Your task to perform on an android device: turn off data saver in the chrome app Image 0: 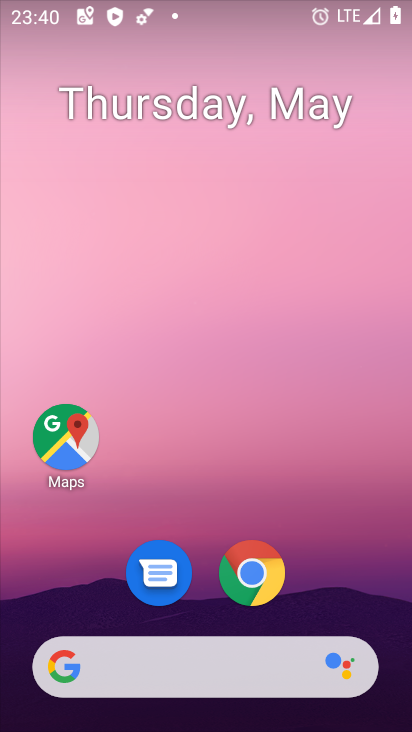
Step 0: click (245, 597)
Your task to perform on an android device: turn off data saver in the chrome app Image 1: 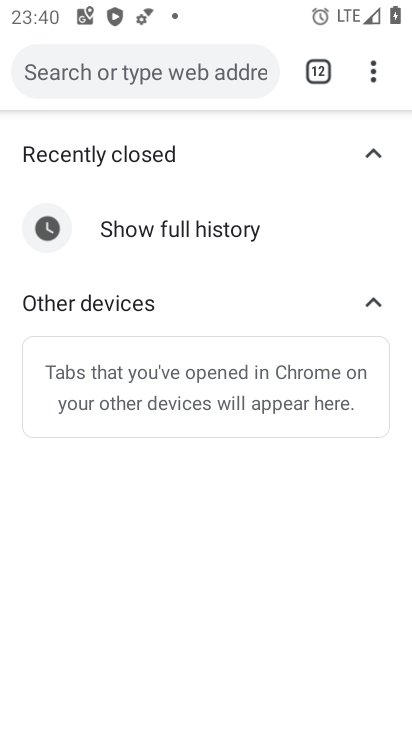
Step 1: click (363, 71)
Your task to perform on an android device: turn off data saver in the chrome app Image 2: 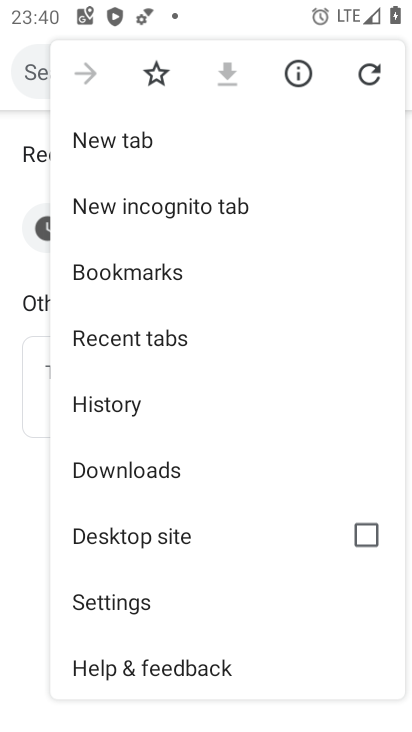
Step 2: drag from (207, 529) to (190, 335)
Your task to perform on an android device: turn off data saver in the chrome app Image 3: 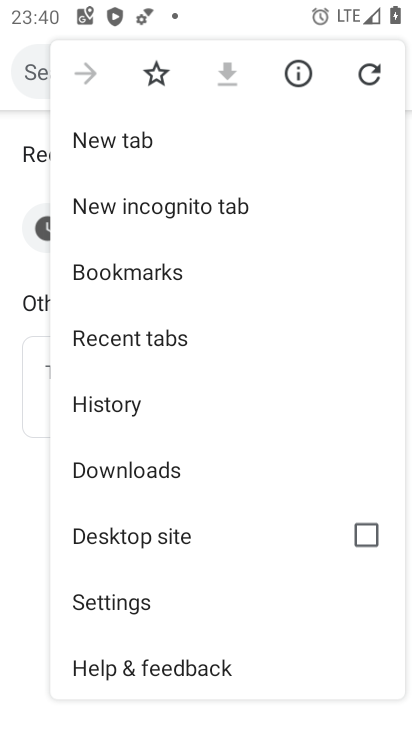
Step 3: click (160, 599)
Your task to perform on an android device: turn off data saver in the chrome app Image 4: 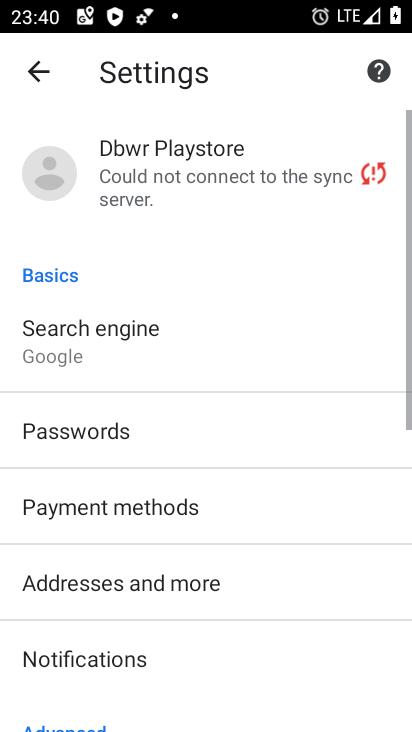
Step 4: drag from (164, 598) to (187, 253)
Your task to perform on an android device: turn off data saver in the chrome app Image 5: 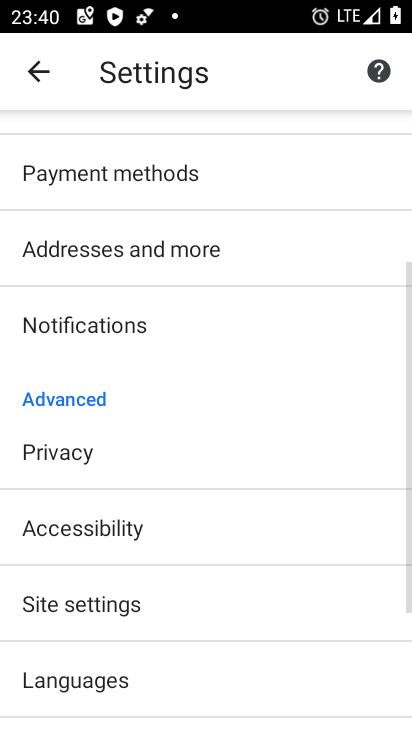
Step 5: drag from (147, 626) to (156, 383)
Your task to perform on an android device: turn off data saver in the chrome app Image 6: 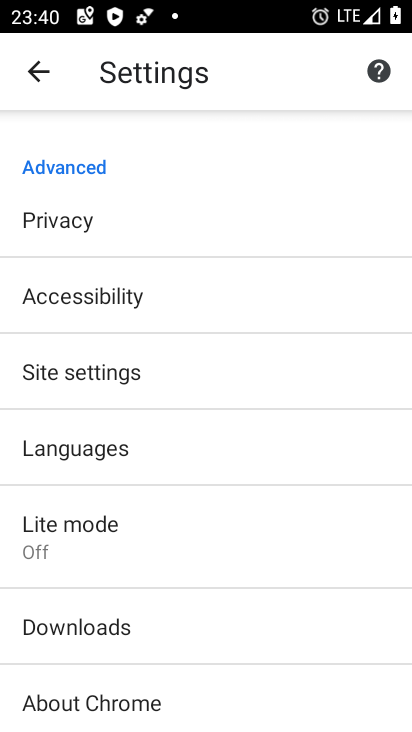
Step 6: click (134, 510)
Your task to perform on an android device: turn off data saver in the chrome app Image 7: 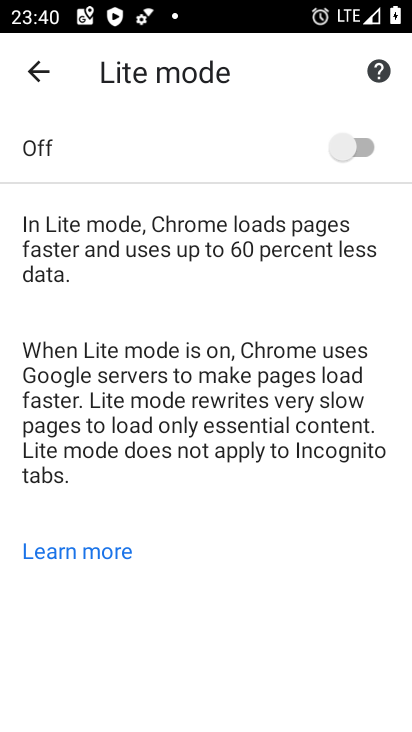
Step 7: task complete